Your task to perform on an android device: When is my next meeting? Image 0: 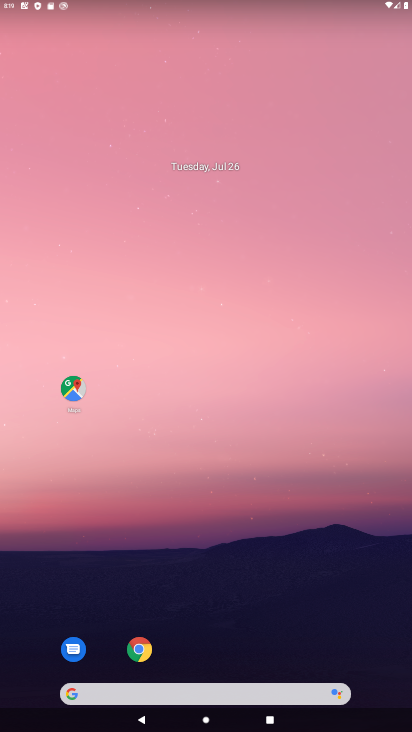
Step 0: click (223, 160)
Your task to perform on an android device: When is my next meeting? Image 1: 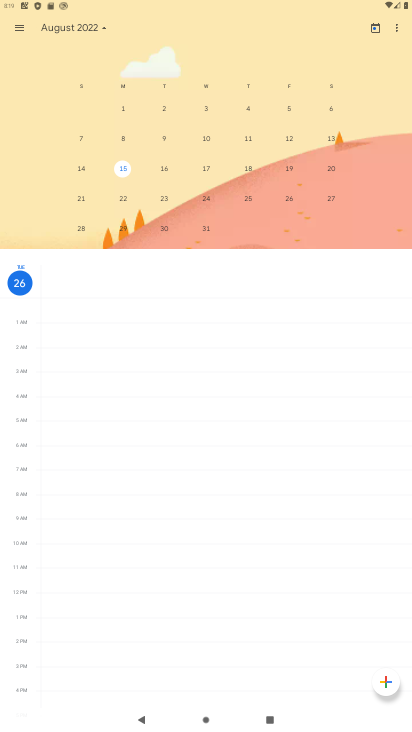
Step 1: click (102, 27)
Your task to perform on an android device: When is my next meeting? Image 2: 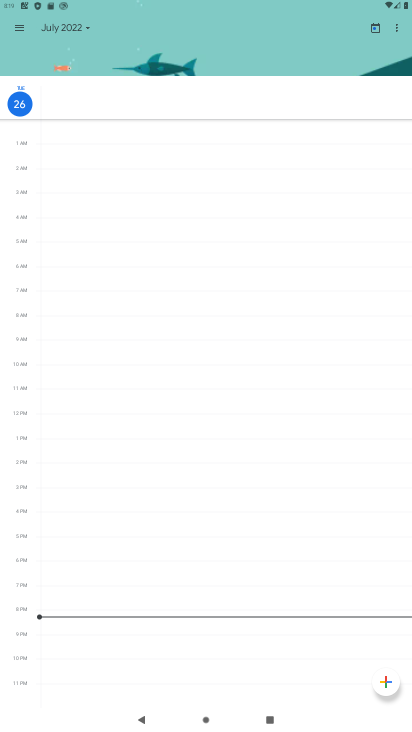
Step 2: click (102, 27)
Your task to perform on an android device: When is my next meeting? Image 3: 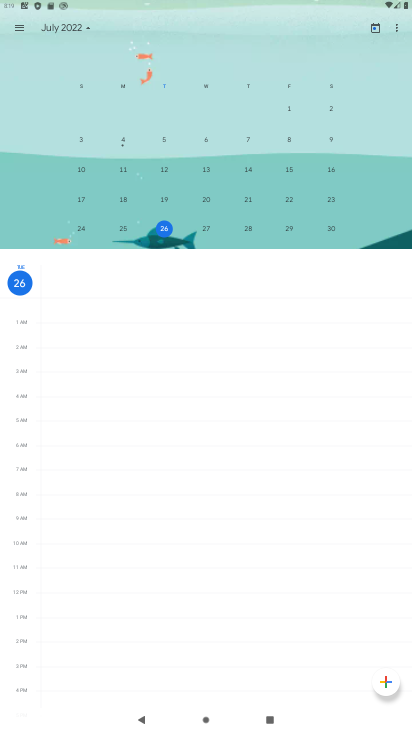
Step 3: task complete